Your task to perform on an android device: Is it going to rain today? Image 0: 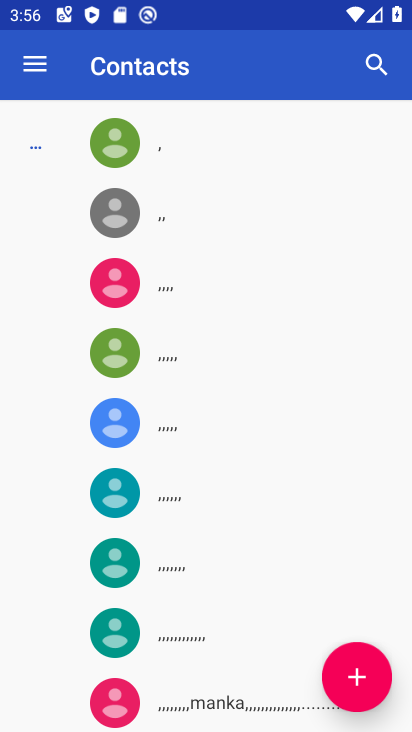
Step 0: press home button
Your task to perform on an android device: Is it going to rain today? Image 1: 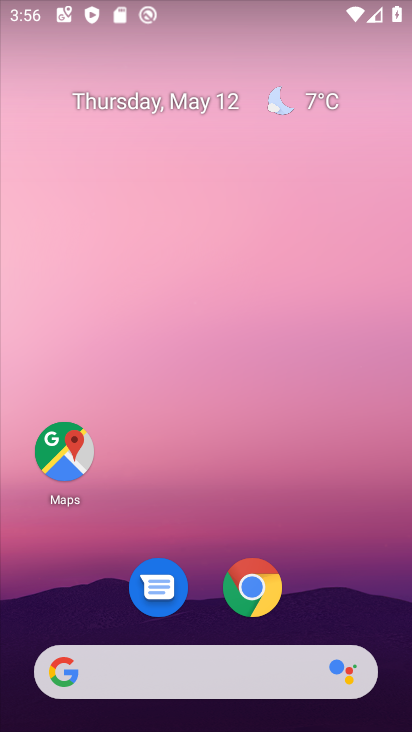
Step 1: click (262, 611)
Your task to perform on an android device: Is it going to rain today? Image 2: 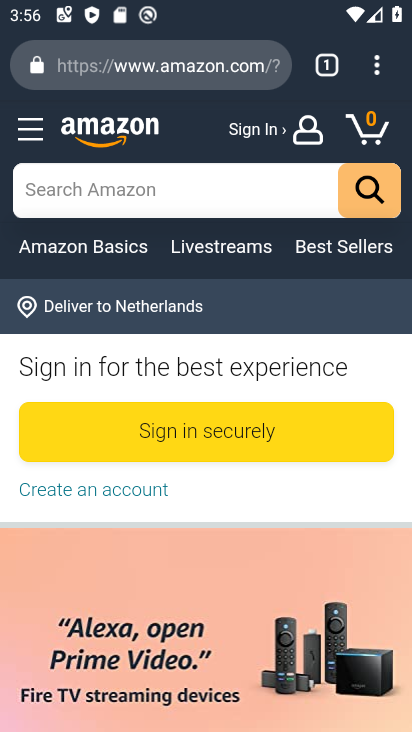
Step 2: click (164, 71)
Your task to perform on an android device: Is it going to rain today? Image 3: 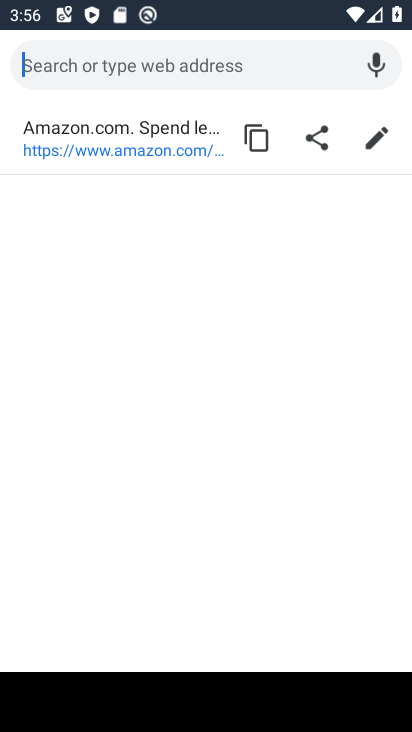
Step 3: type "is it going to rain today?"
Your task to perform on an android device: Is it going to rain today? Image 4: 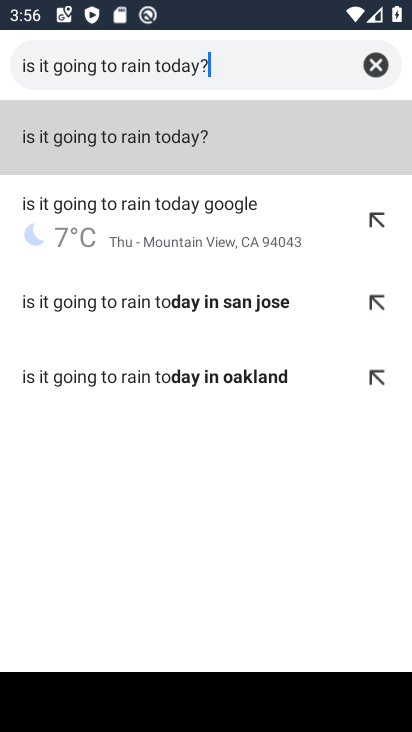
Step 4: click (191, 137)
Your task to perform on an android device: Is it going to rain today? Image 5: 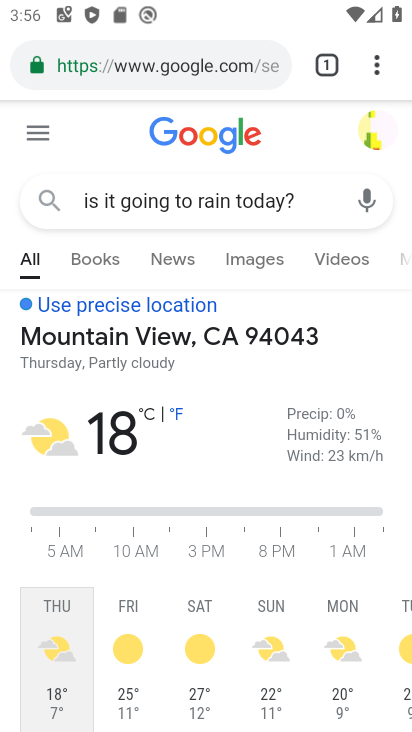
Step 5: task complete